Your task to perform on an android device: Turn off the flashlight Image 0: 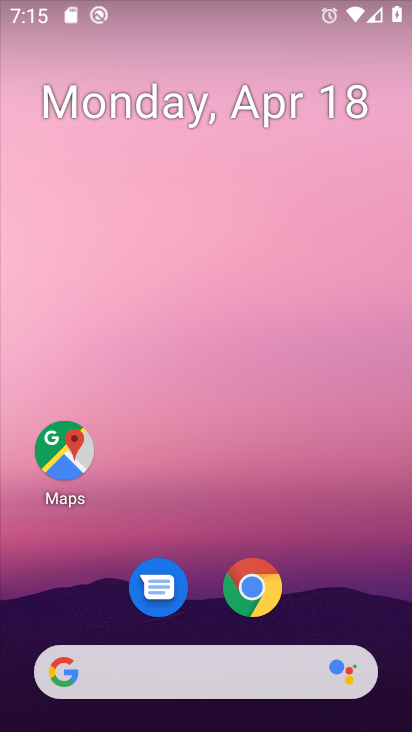
Step 0: drag from (325, 572) to (291, 89)
Your task to perform on an android device: Turn off the flashlight Image 1: 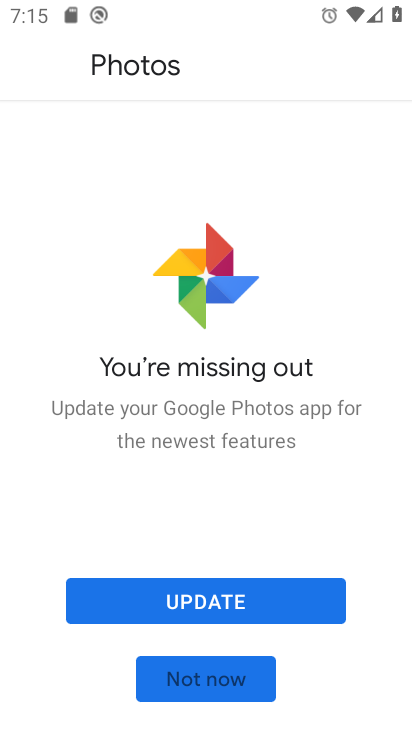
Step 1: click (234, 594)
Your task to perform on an android device: Turn off the flashlight Image 2: 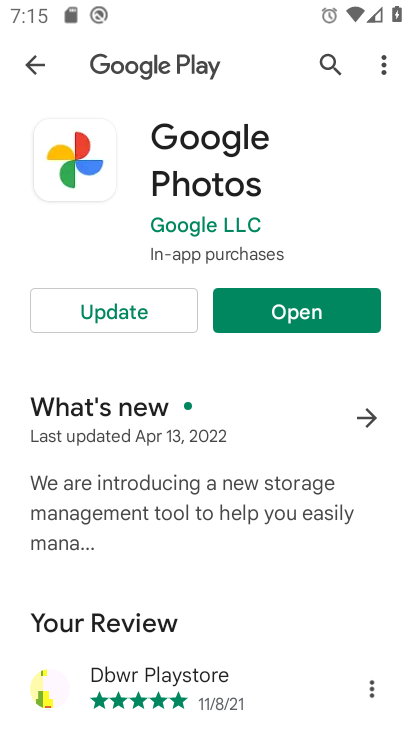
Step 2: click (141, 304)
Your task to perform on an android device: Turn off the flashlight Image 3: 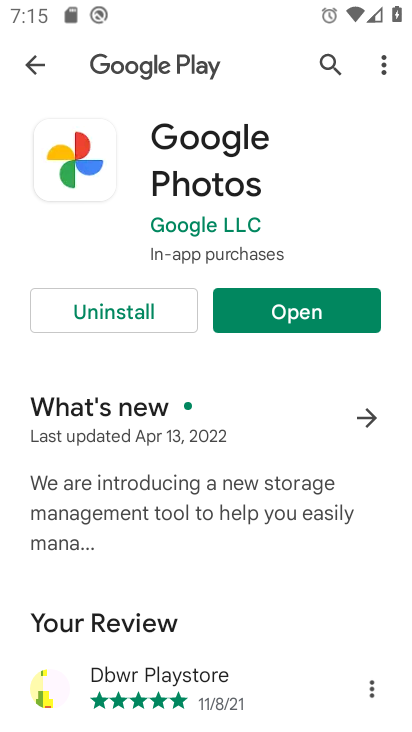
Step 3: click (274, 317)
Your task to perform on an android device: Turn off the flashlight Image 4: 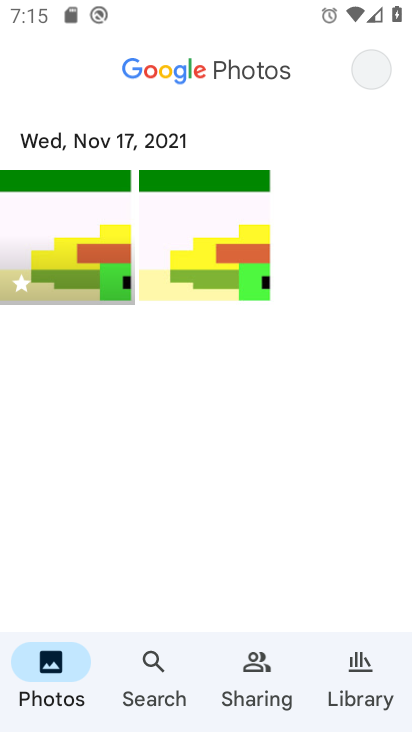
Step 4: press back button
Your task to perform on an android device: Turn off the flashlight Image 5: 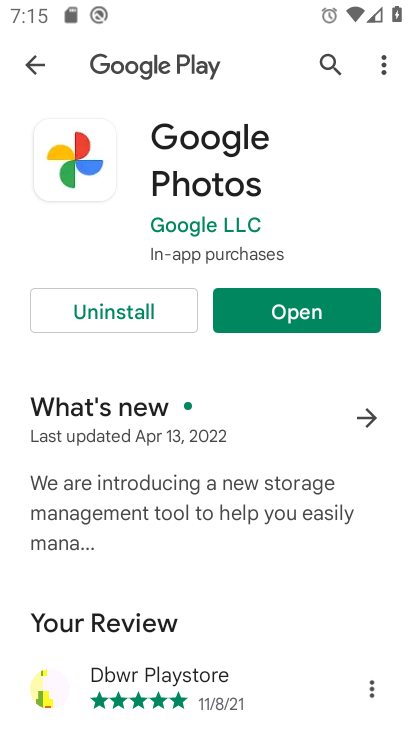
Step 5: press back button
Your task to perform on an android device: Turn off the flashlight Image 6: 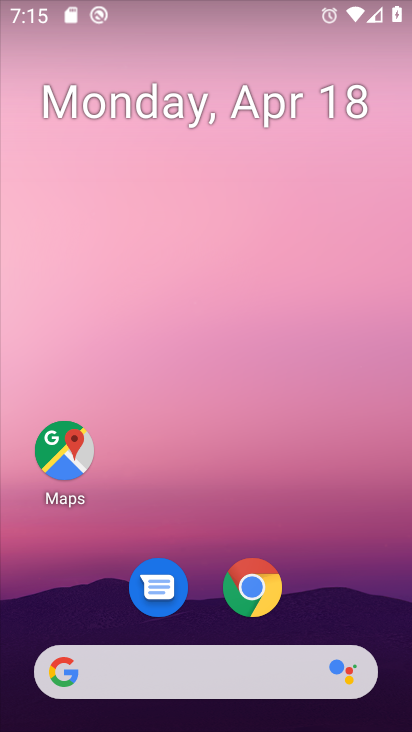
Step 6: drag from (317, 623) to (299, 185)
Your task to perform on an android device: Turn off the flashlight Image 7: 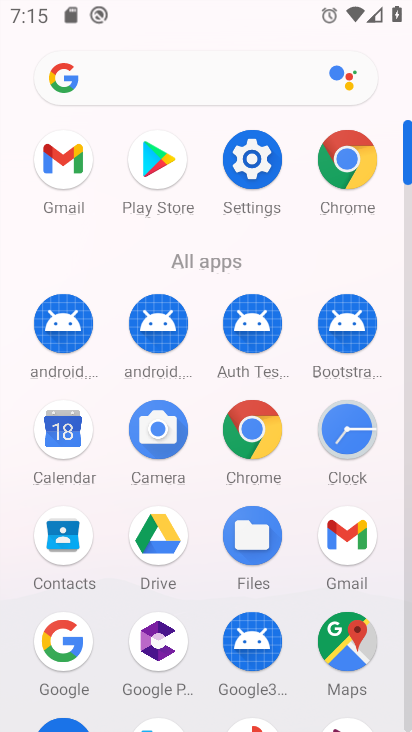
Step 7: click (257, 171)
Your task to perform on an android device: Turn off the flashlight Image 8: 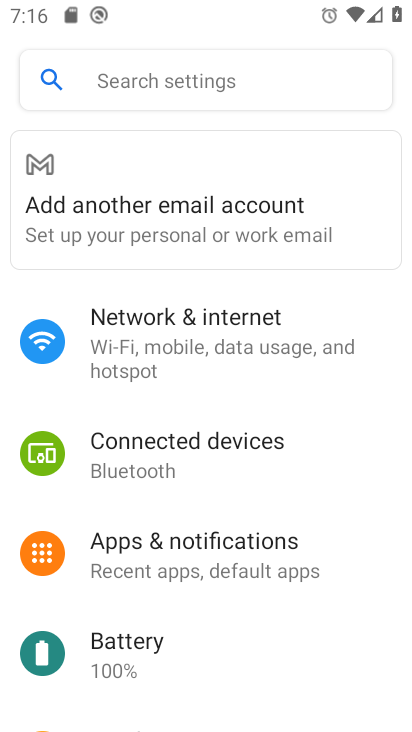
Step 8: task complete